Your task to perform on an android device: Open the calendar app, open the side menu, and click the "Day" option Image 0: 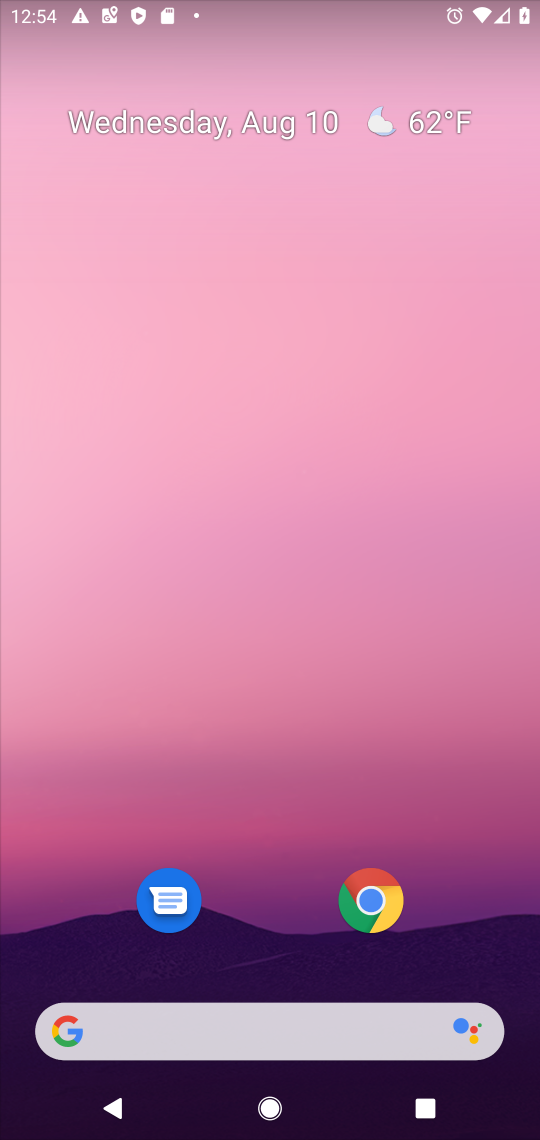
Step 0: drag from (279, 885) to (399, 0)
Your task to perform on an android device: Open the calendar app, open the side menu, and click the "Day" option Image 1: 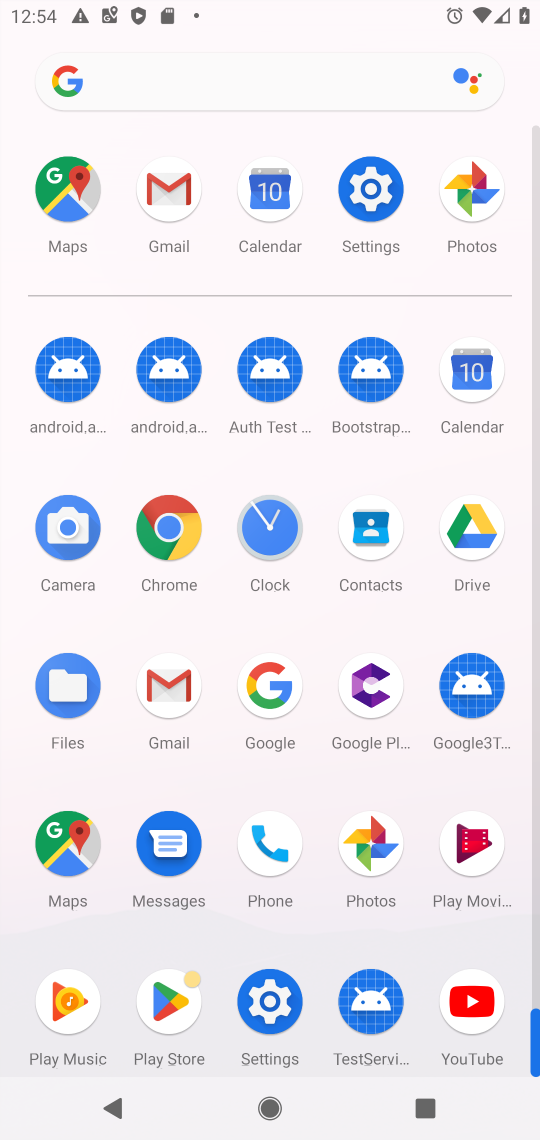
Step 1: click (270, 191)
Your task to perform on an android device: Open the calendar app, open the side menu, and click the "Day" option Image 2: 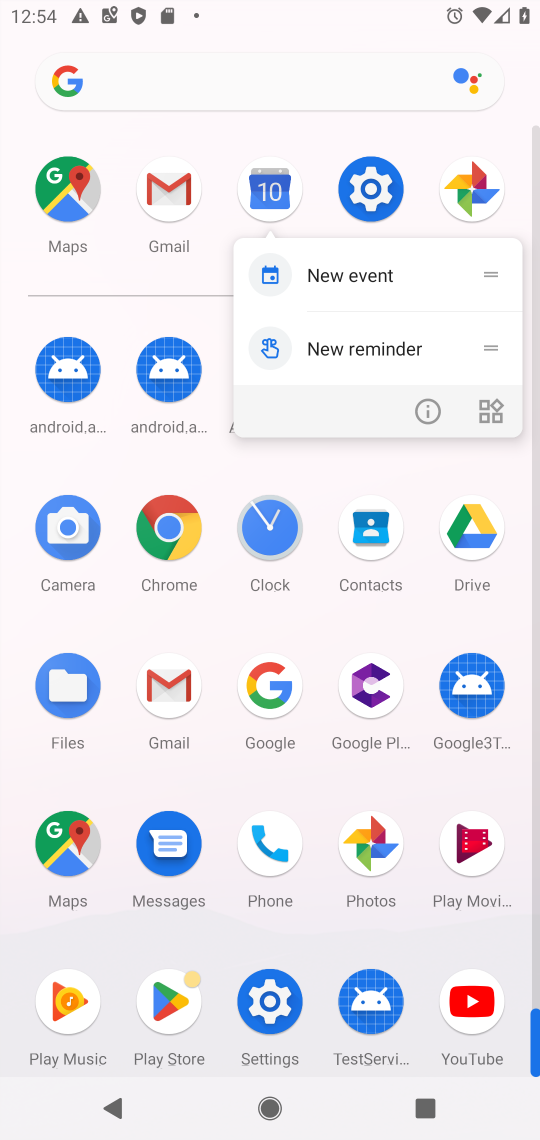
Step 2: click (270, 191)
Your task to perform on an android device: Open the calendar app, open the side menu, and click the "Day" option Image 3: 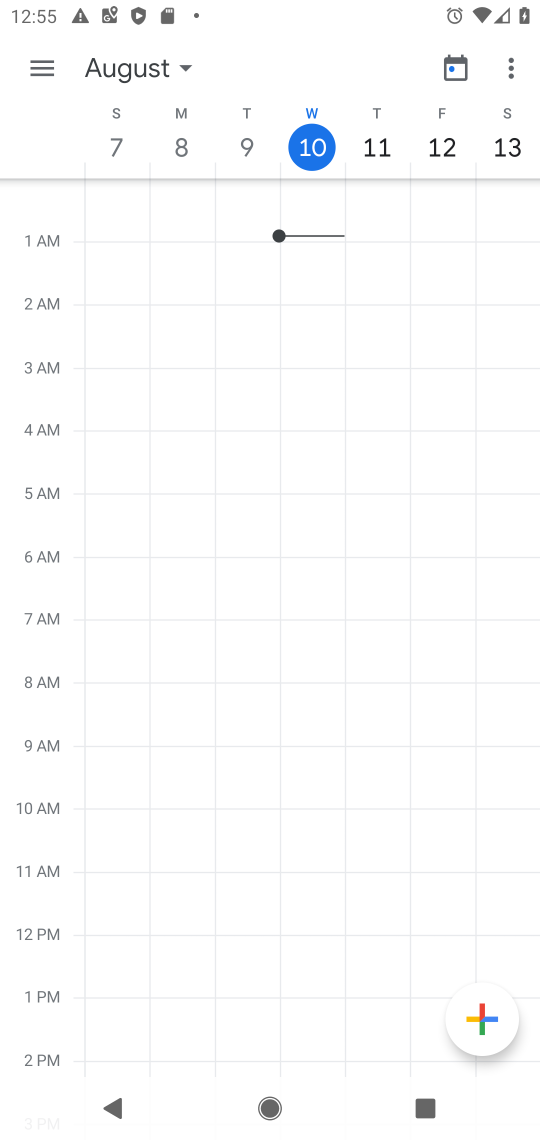
Step 3: click (47, 67)
Your task to perform on an android device: Open the calendar app, open the side menu, and click the "Day" option Image 4: 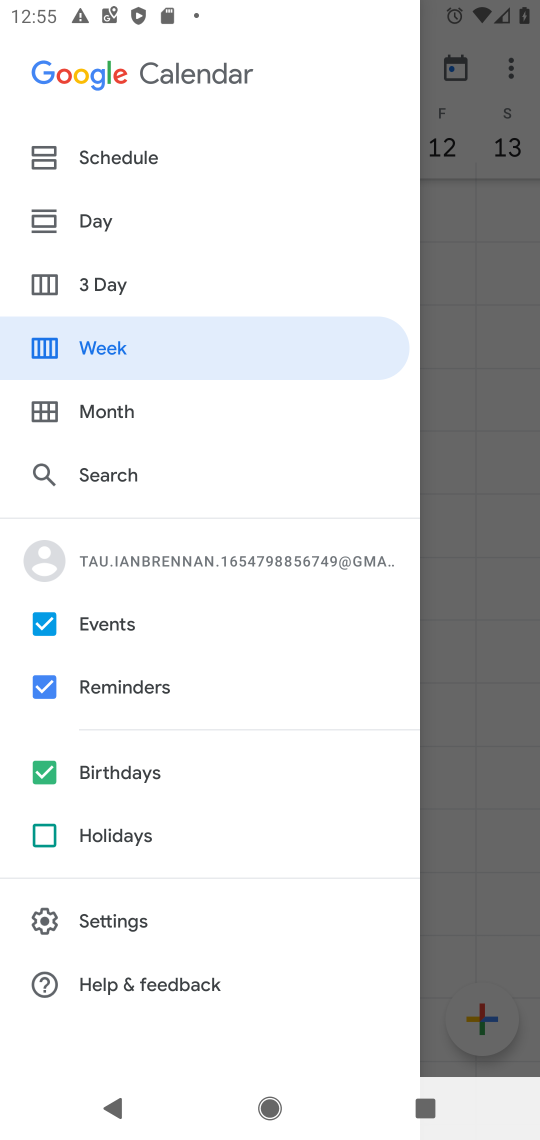
Step 4: click (49, 222)
Your task to perform on an android device: Open the calendar app, open the side menu, and click the "Day" option Image 5: 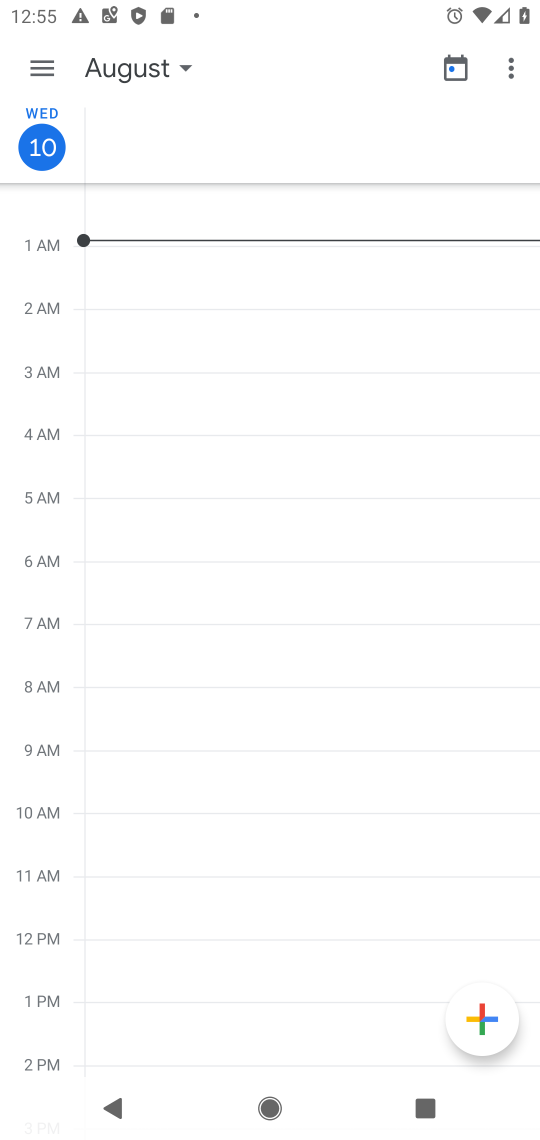
Step 5: task complete